Your task to perform on an android device: stop showing notifications on the lock screen Image 0: 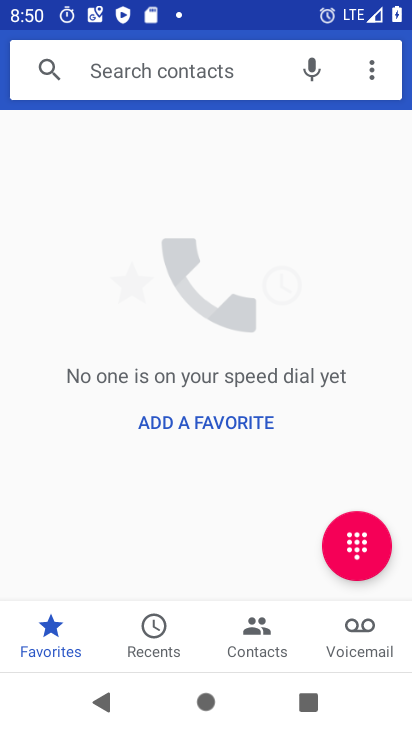
Step 0: press home button
Your task to perform on an android device: stop showing notifications on the lock screen Image 1: 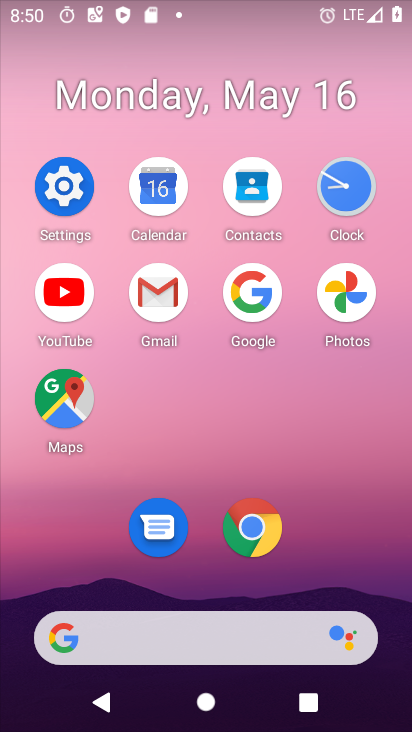
Step 1: click (63, 187)
Your task to perform on an android device: stop showing notifications on the lock screen Image 2: 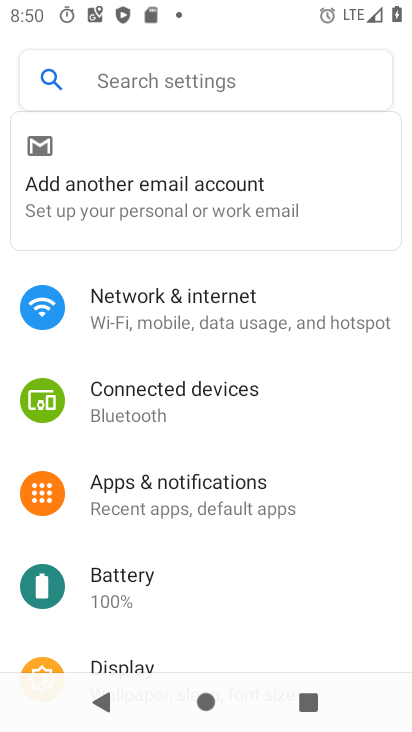
Step 2: click (267, 502)
Your task to perform on an android device: stop showing notifications on the lock screen Image 3: 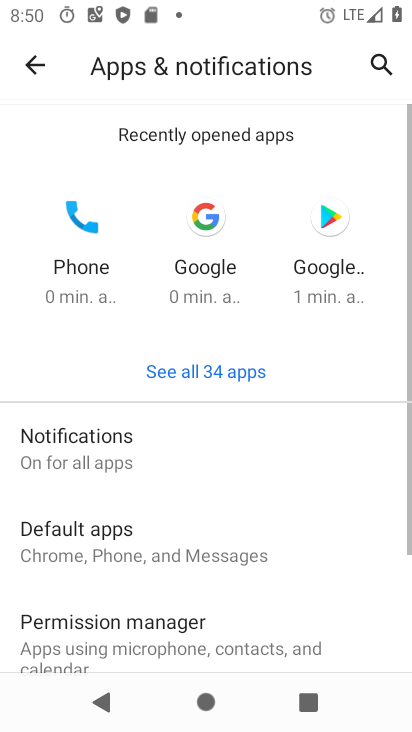
Step 3: click (153, 478)
Your task to perform on an android device: stop showing notifications on the lock screen Image 4: 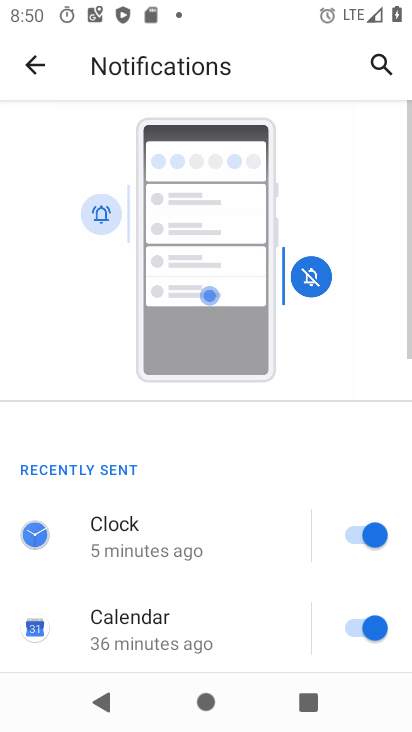
Step 4: drag from (208, 589) to (224, 184)
Your task to perform on an android device: stop showing notifications on the lock screen Image 5: 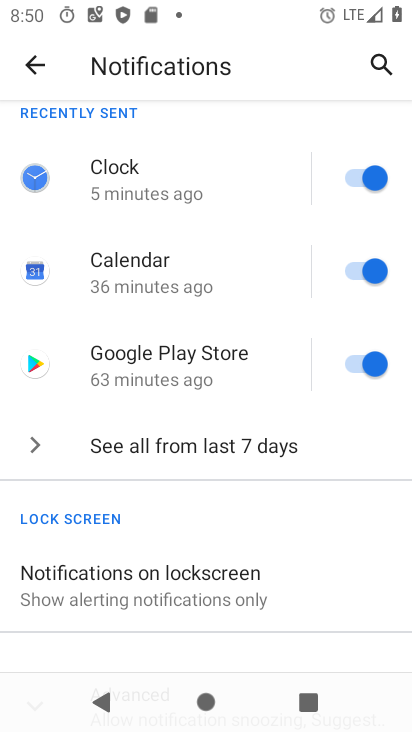
Step 5: click (223, 599)
Your task to perform on an android device: stop showing notifications on the lock screen Image 6: 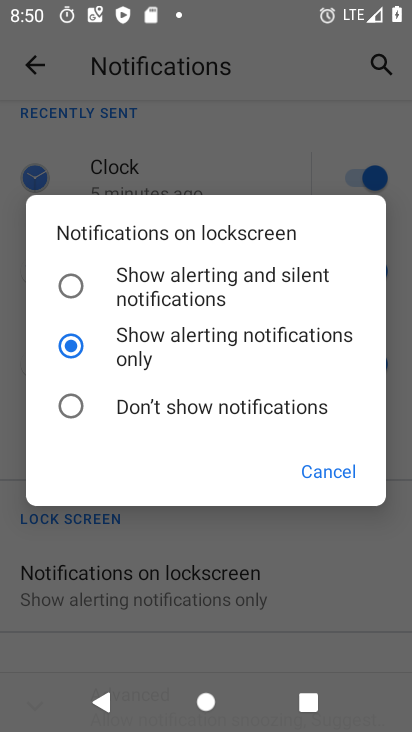
Step 6: click (146, 406)
Your task to perform on an android device: stop showing notifications on the lock screen Image 7: 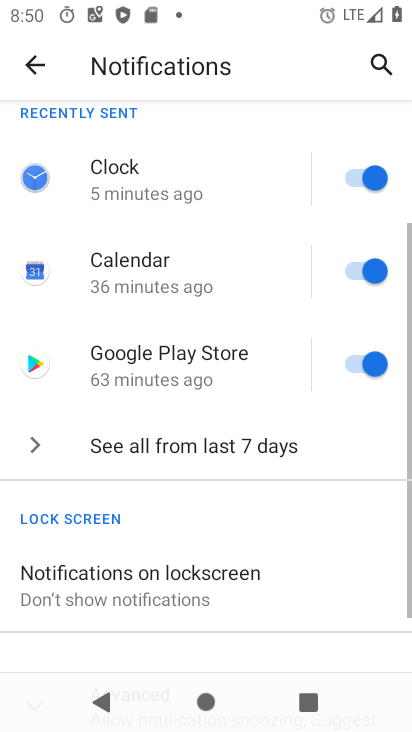
Step 7: task complete